Your task to perform on an android device: Go to settings Image 0: 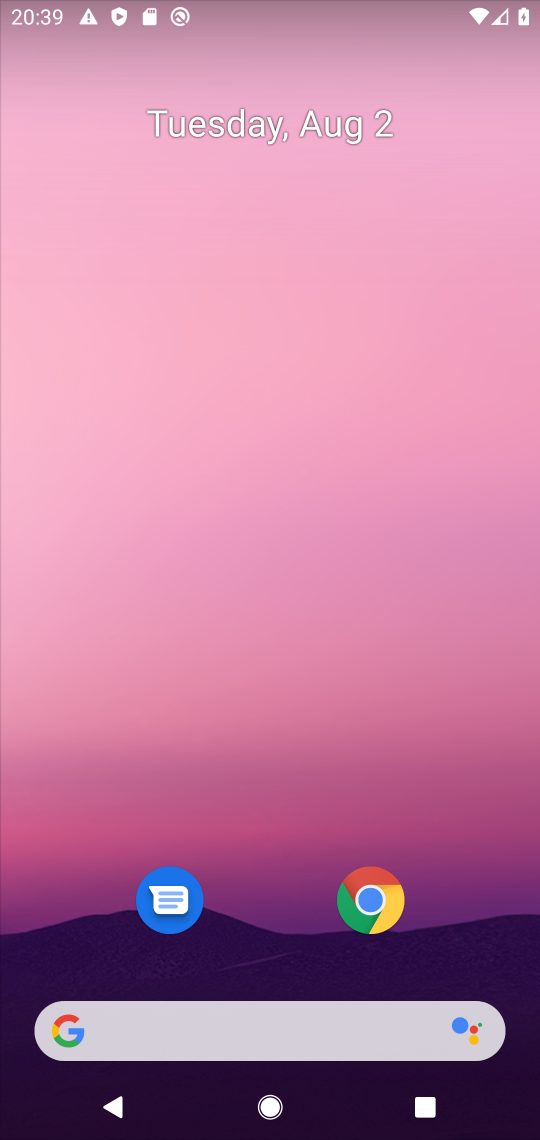
Step 0: drag from (298, 900) to (319, 33)
Your task to perform on an android device: Go to settings Image 1: 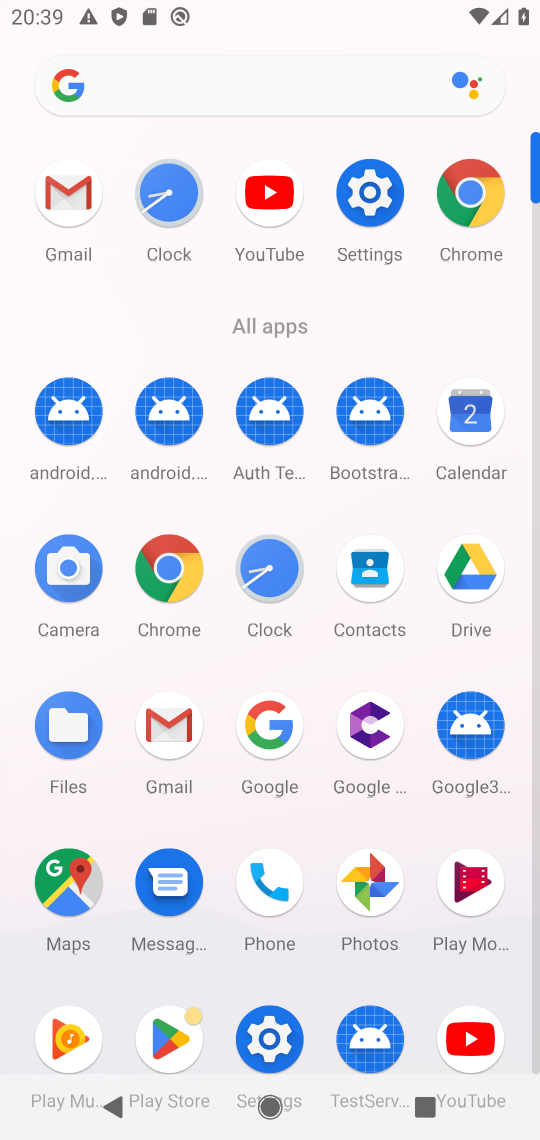
Step 1: click (361, 185)
Your task to perform on an android device: Go to settings Image 2: 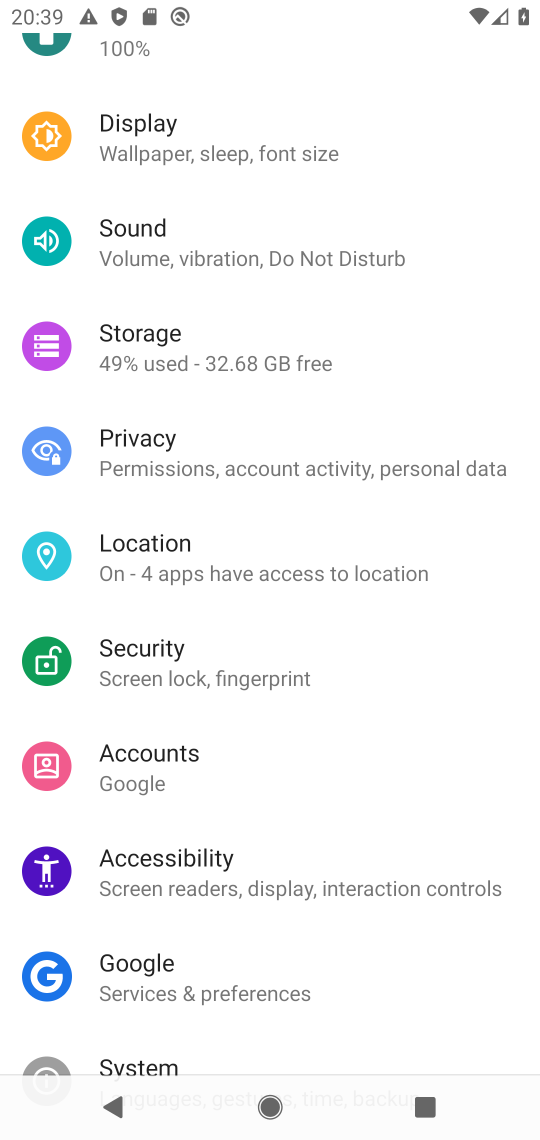
Step 2: task complete